Your task to perform on an android device: turn off translation in the chrome app Image 0: 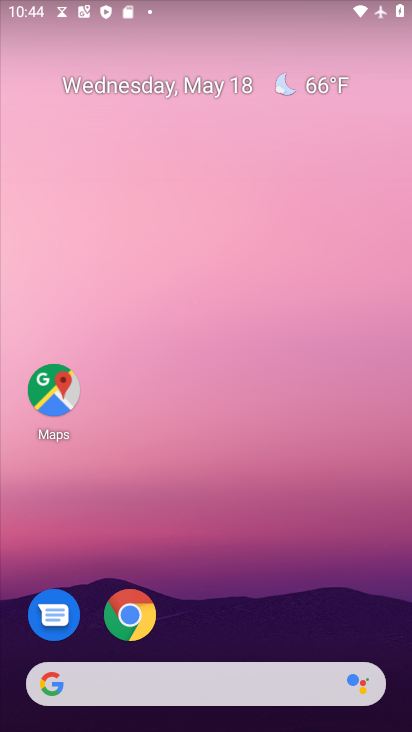
Step 0: drag from (223, 552) to (161, 16)
Your task to perform on an android device: turn off translation in the chrome app Image 1: 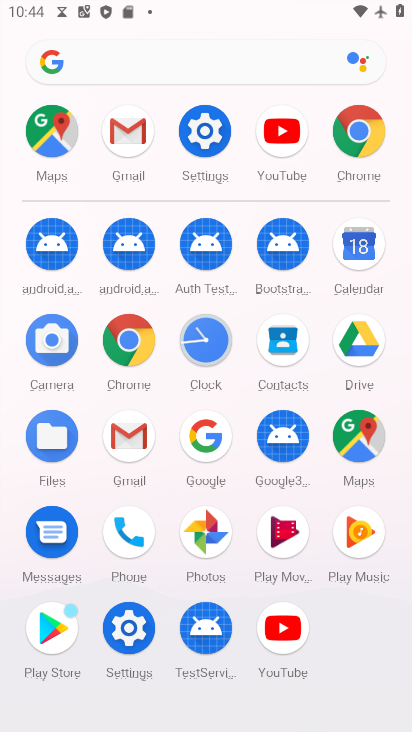
Step 1: drag from (3, 534) to (14, 280)
Your task to perform on an android device: turn off translation in the chrome app Image 2: 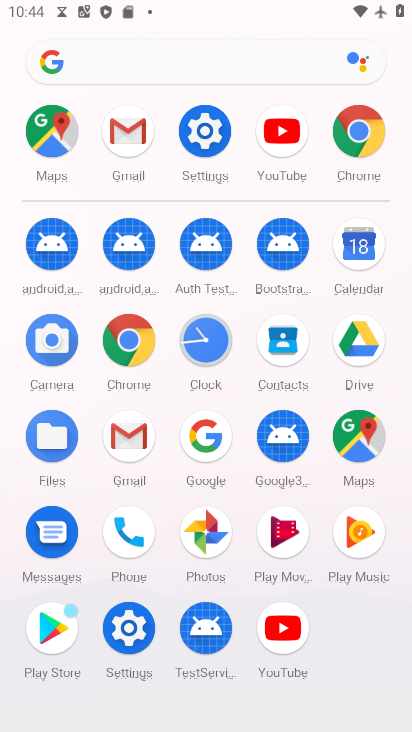
Step 2: click (123, 338)
Your task to perform on an android device: turn off translation in the chrome app Image 3: 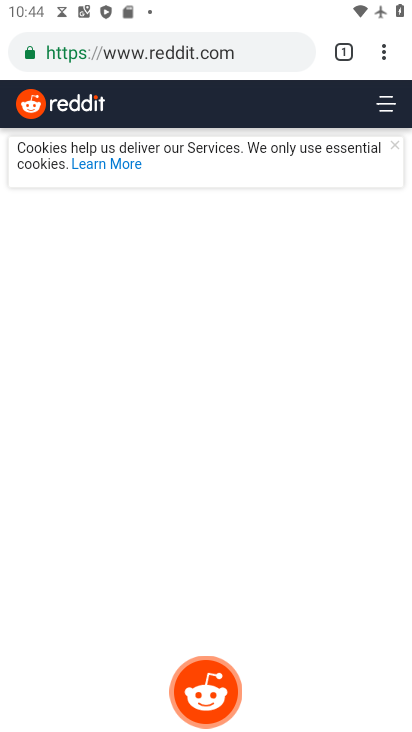
Step 3: drag from (382, 51) to (196, 625)
Your task to perform on an android device: turn off translation in the chrome app Image 4: 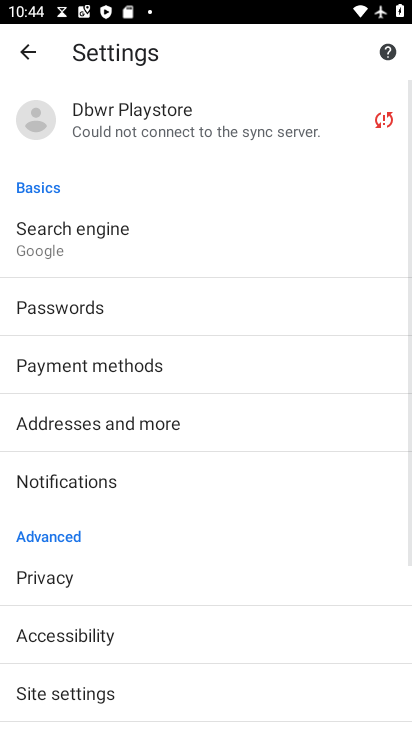
Step 4: drag from (221, 551) to (237, 143)
Your task to perform on an android device: turn off translation in the chrome app Image 5: 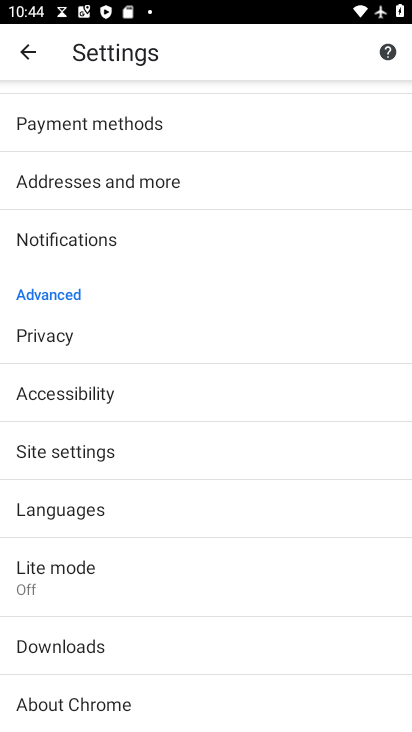
Step 5: click (105, 505)
Your task to perform on an android device: turn off translation in the chrome app Image 6: 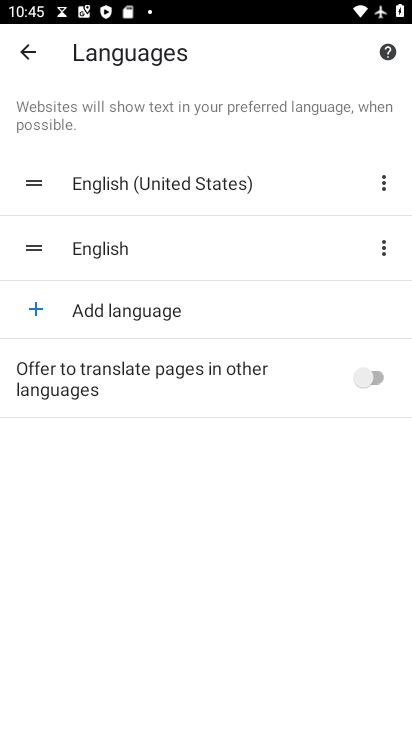
Step 6: task complete